Your task to perform on an android device: What's on my calendar tomorrow? Image 0: 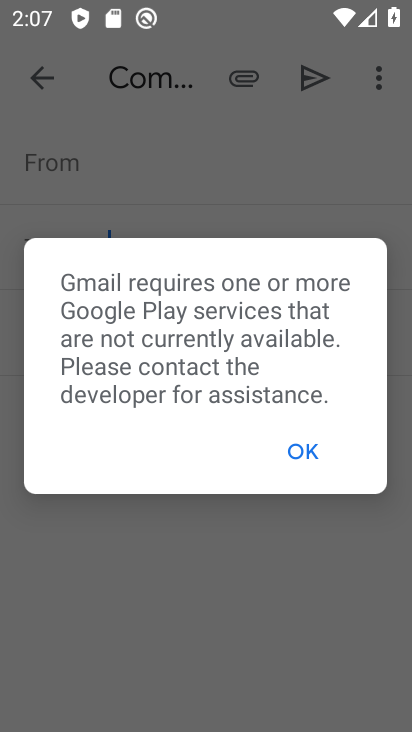
Step 0: press home button
Your task to perform on an android device: What's on my calendar tomorrow? Image 1: 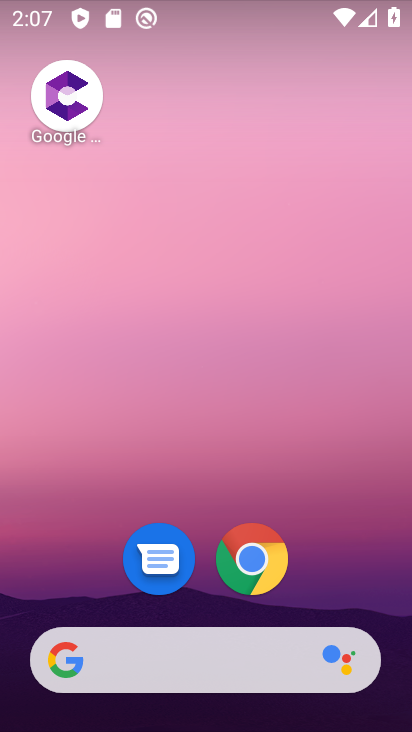
Step 1: drag from (373, 584) to (368, 70)
Your task to perform on an android device: What's on my calendar tomorrow? Image 2: 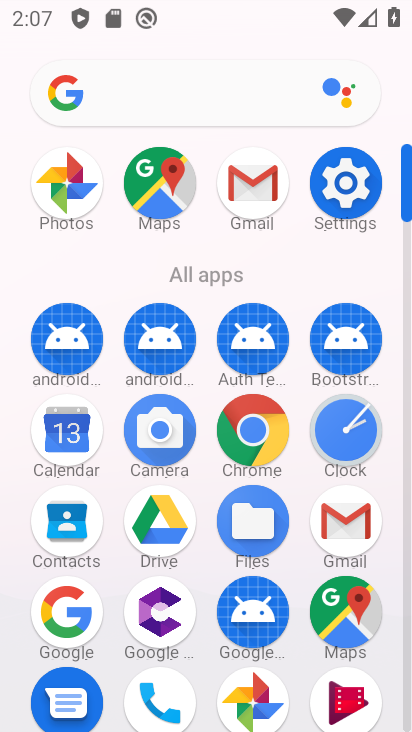
Step 2: click (77, 437)
Your task to perform on an android device: What's on my calendar tomorrow? Image 3: 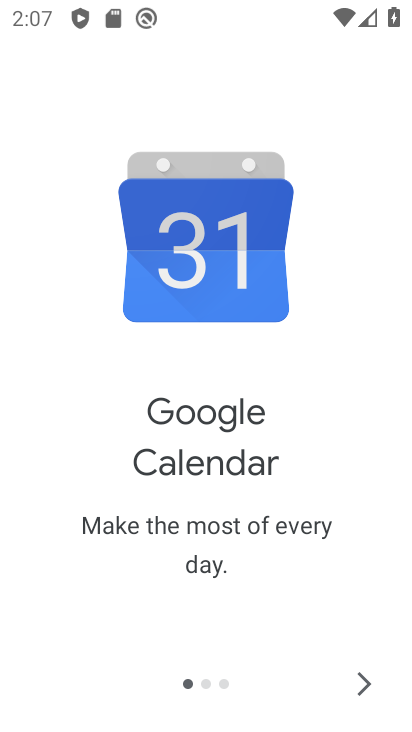
Step 3: click (350, 687)
Your task to perform on an android device: What's on my calendar tomorrow? Image 4: 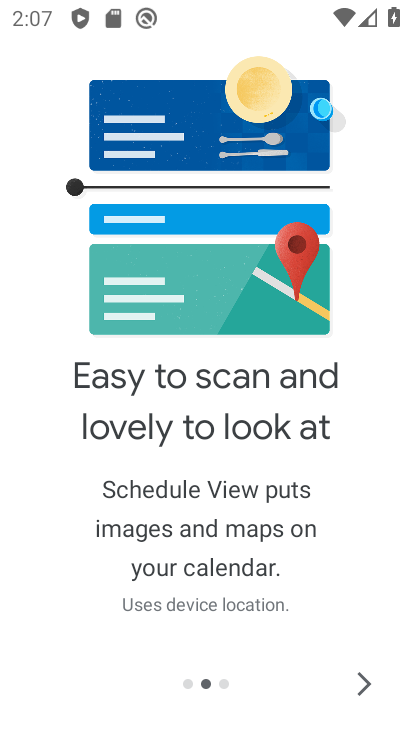
Step 4: click (350, 687)
Your task to perform on an android device: What's on my calendar tomorrow? Image 5: 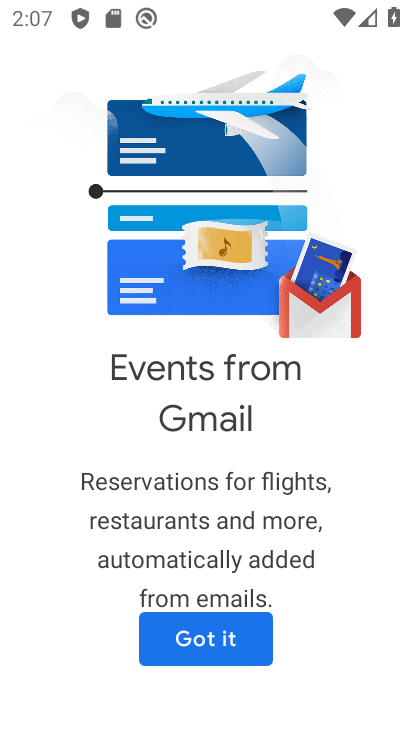
Step 5: click (253, 656)
Your task to perform on an android device: What's on my calendar tomorrow? Image 6: 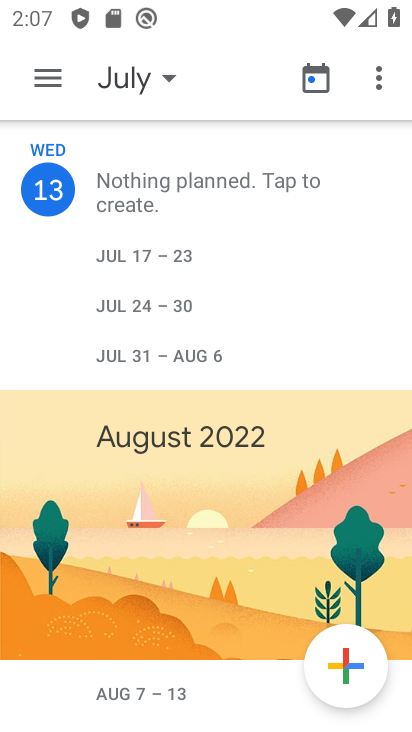
Step 6: click (168, 80)
Your task to perform on an android device: What's on my calendar tomorrow? Image 7: 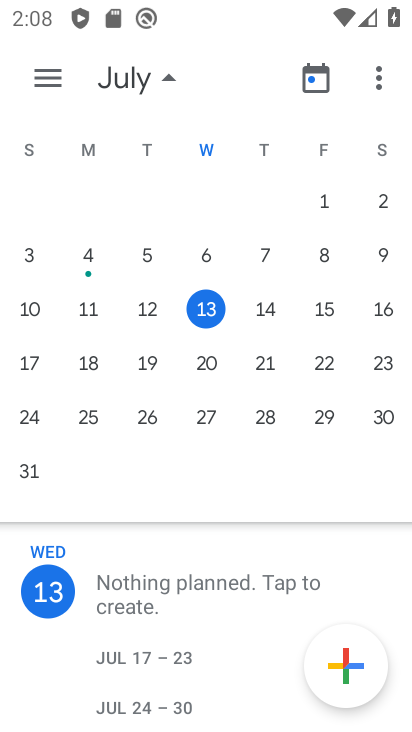
Step 7: click (275, 311)
Your task to perform on an android device: What's on my calendar tomorrow? Image 8: 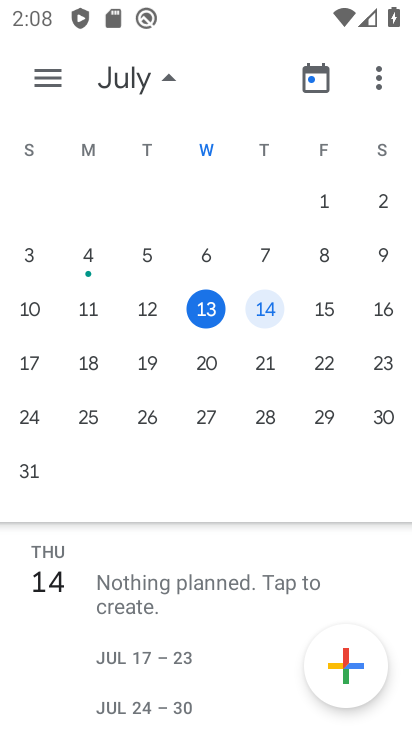
Step 8: task complete